Your task to perform on an android device: toggle translation in the chrome app Image 0: 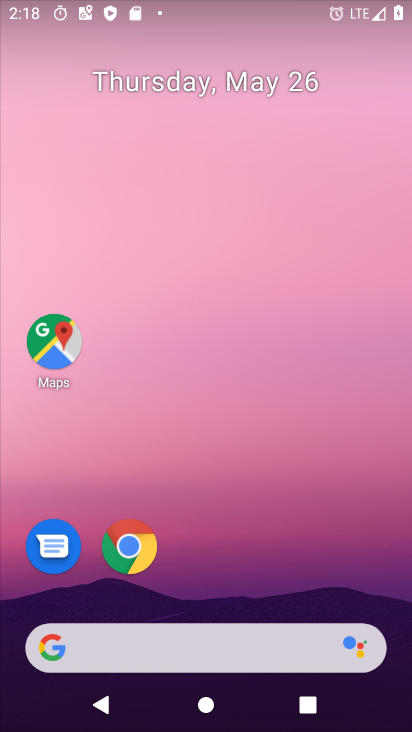
Step 0: click (135, 552)
Your task to perform on an android device: toggle translation in the chrome app Image 1: 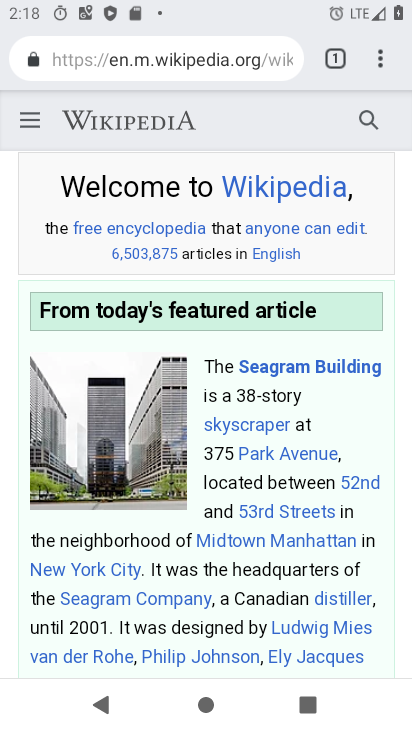
Step 1: click (374, 55)
Your task to perform on an android device: toggle translation in the chrome app Image 2: 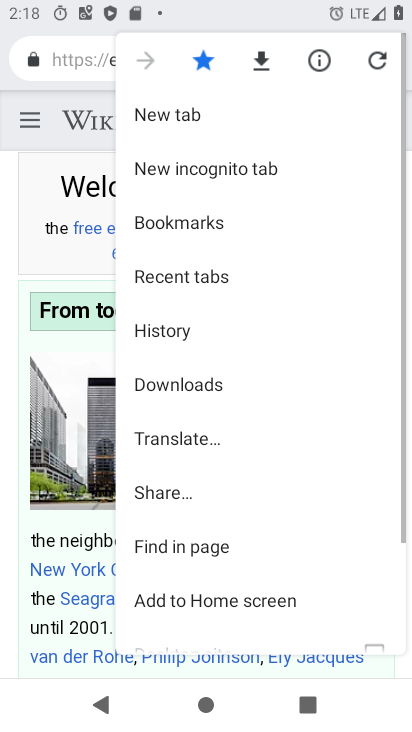
Step 2: drag from (208, 547) to (224, 141)
Your task to perform on an android device: toggle translation in the chrome app Image 3: 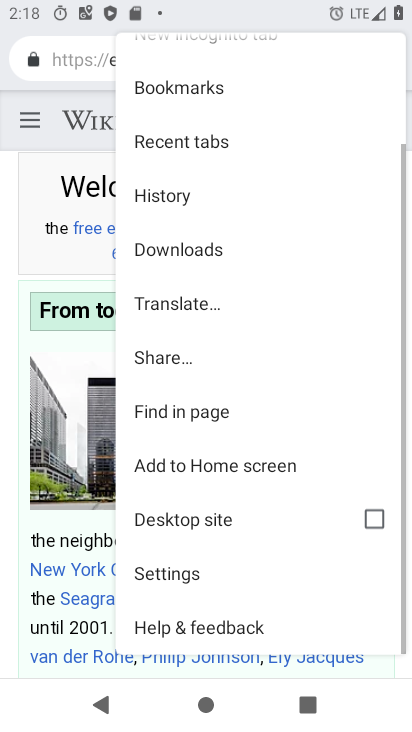
Step 3: click (196, 579)
Your task to perform on an android device: toggle translation in the chrome app Image 4: 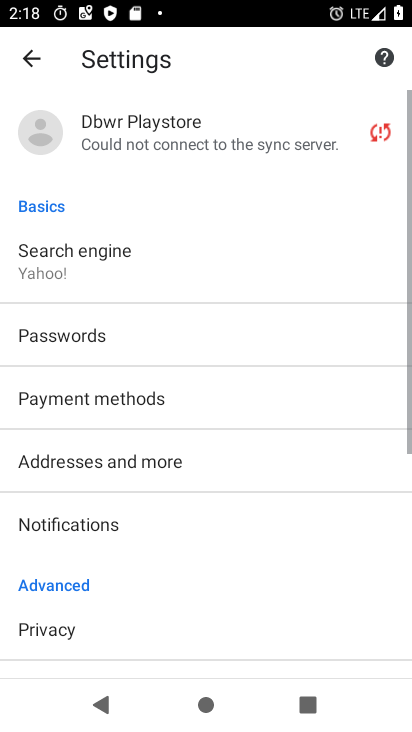
Step 4: drag from (143, 547) to (146, 158)
Your task to perform on an android device: toggle translation in the chrome app Image 5: 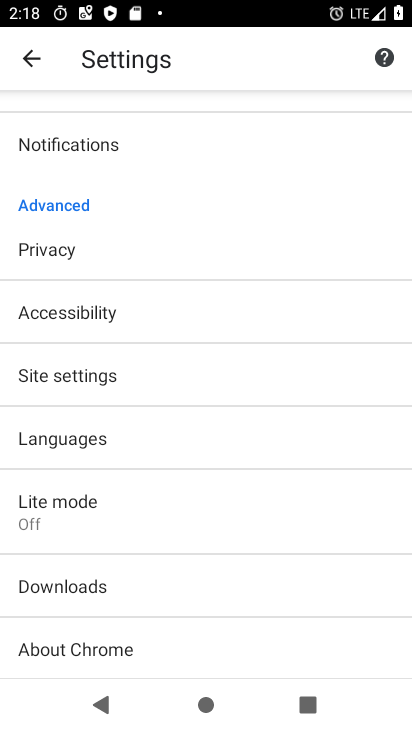
Step 5: click (73, 449)
Your task to perform on an android device: toggle translation in the chrome app Image 6: 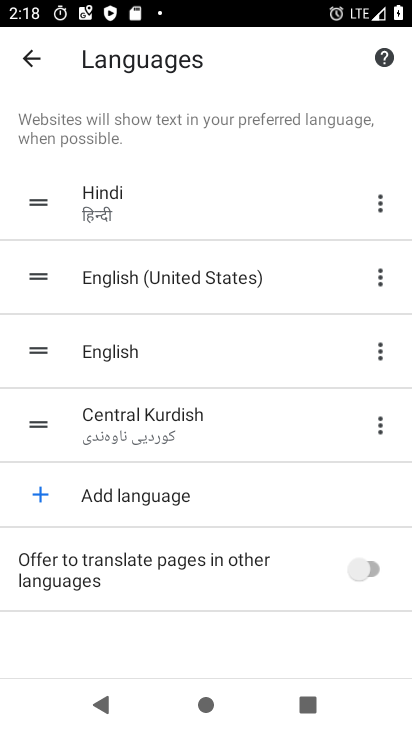
Step 6: click (368, 566)
Your task to perform on an android device: toggle translation in the chrome app Image 7: 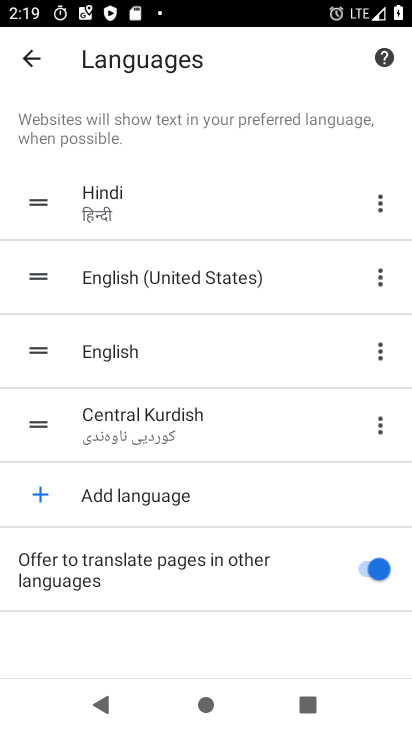
Step 7: task complete